Your task to perform on an android device: Open internet settings Image 0: 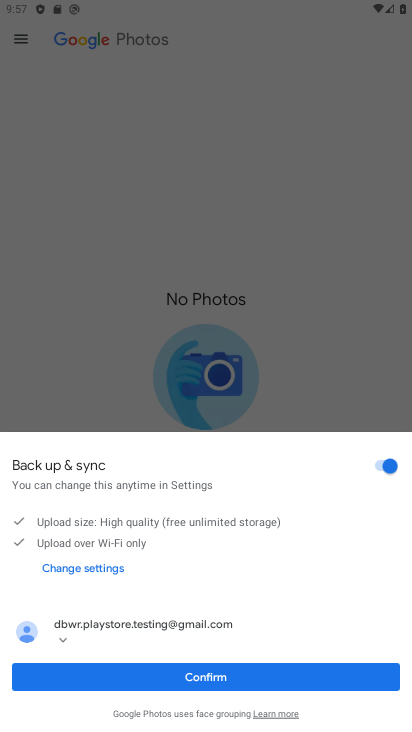
Step 0: press home button
Your task to perform on an android device: Open internet settings Image 1: 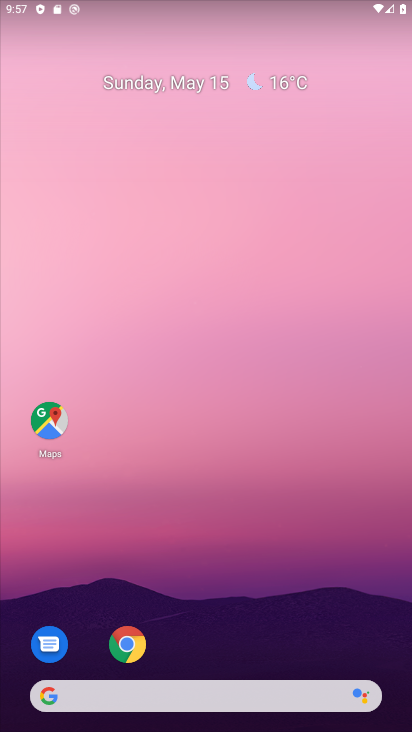
Step 1: drag from (338, 609) to (302, 250)
Your task to perform on an android device: Open internet settings Image 2: 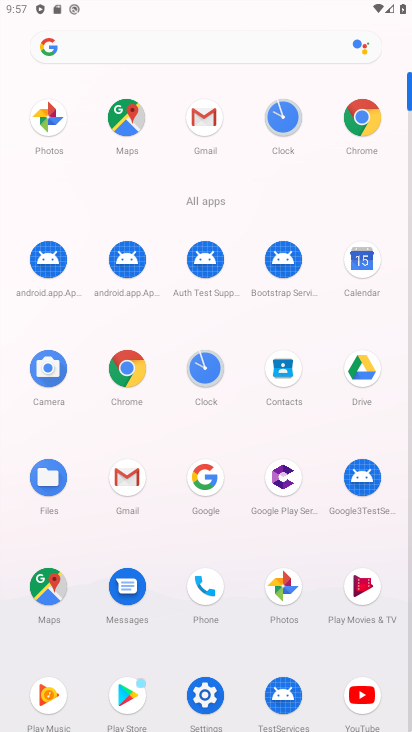
Step 2: drag from (242, 212) to (240, 14)
Your task to perform on an android device: Open internet settings Image 3: 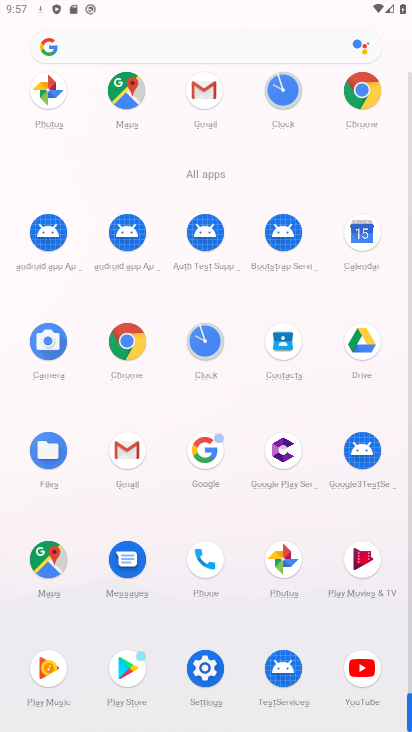
Step 3: click (198, 662)
Your task to perform on an android device: Open internet settings Image 4: 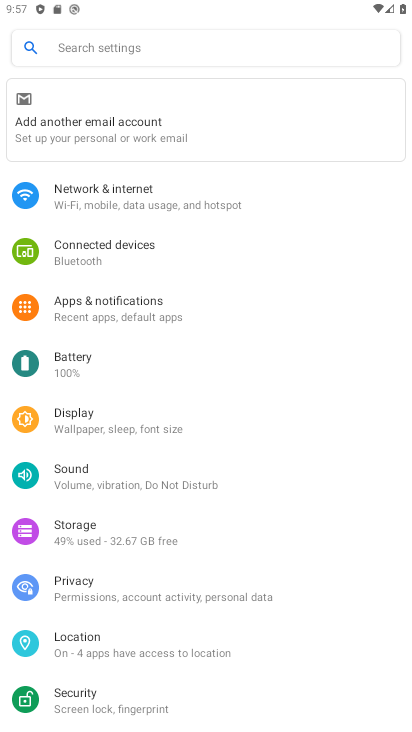
Step 4: click (173, 198)
Your task to perform on an android device: Open internet settings Image 5: 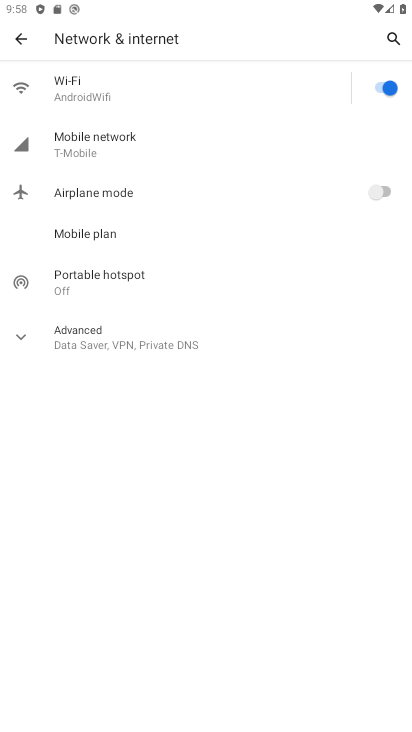
Step 5: task complete